Your task to perform on an android device: Go to location settings Image 0: 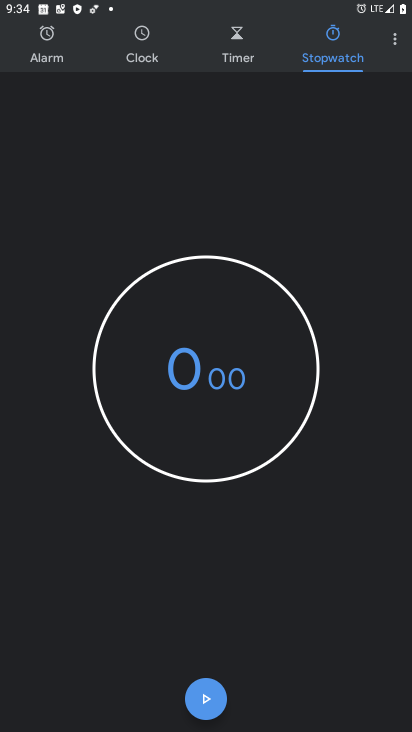
Step 0: press home button
Your task to perform on an android device: Go to location settings Image 1: 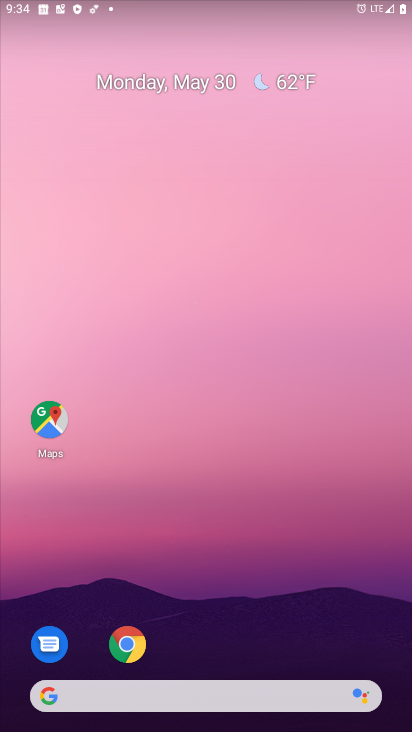
Step 1: drag from (359, 659) to (265, 117)
Your task to perform on an android device: Go to location settings Image 2: 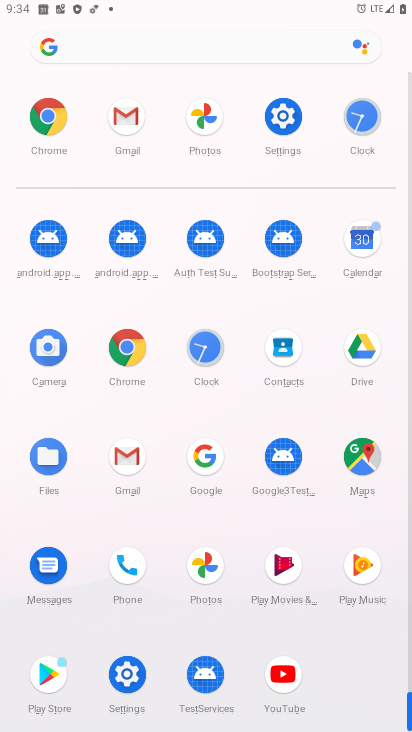
Step 2: click (125, 673)
Your task to perform on an android device: Go to location settings Image 3: 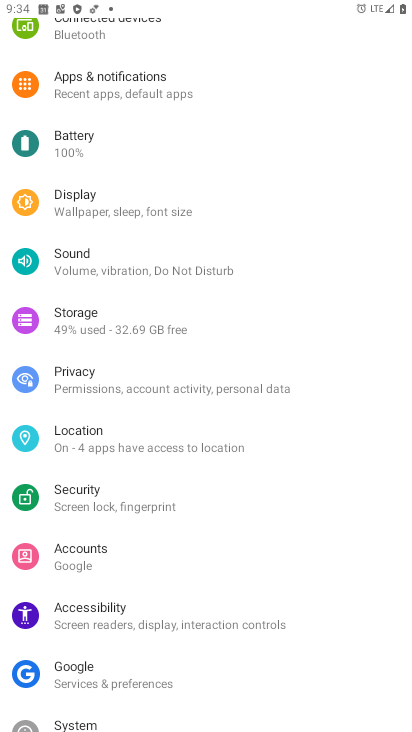
Step 3: click (80, 426)
Your task to perform on an android device: Go to location settings Image 4: 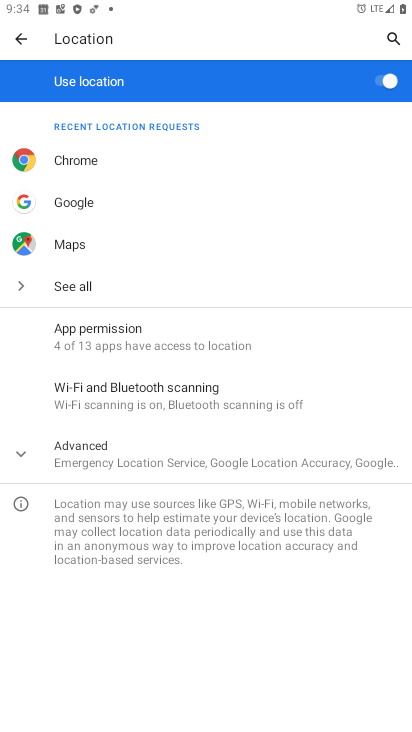
Step 4: click (16, 447)
Your task to perform on an android device: Go to location settings Image 5: 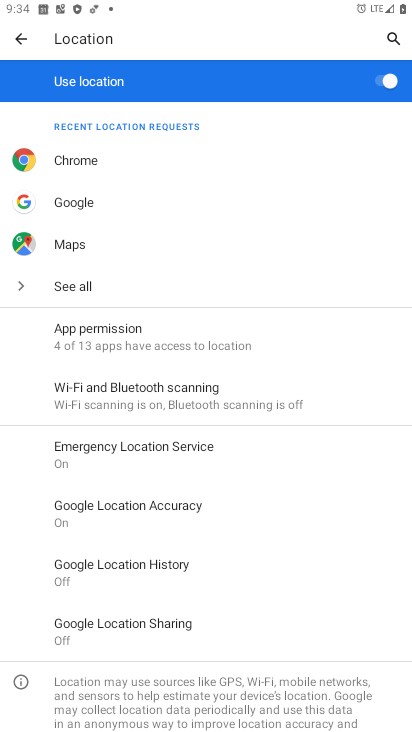
Step 5: task complete